Your task to perform on an android device: Show me recent news Image 0: 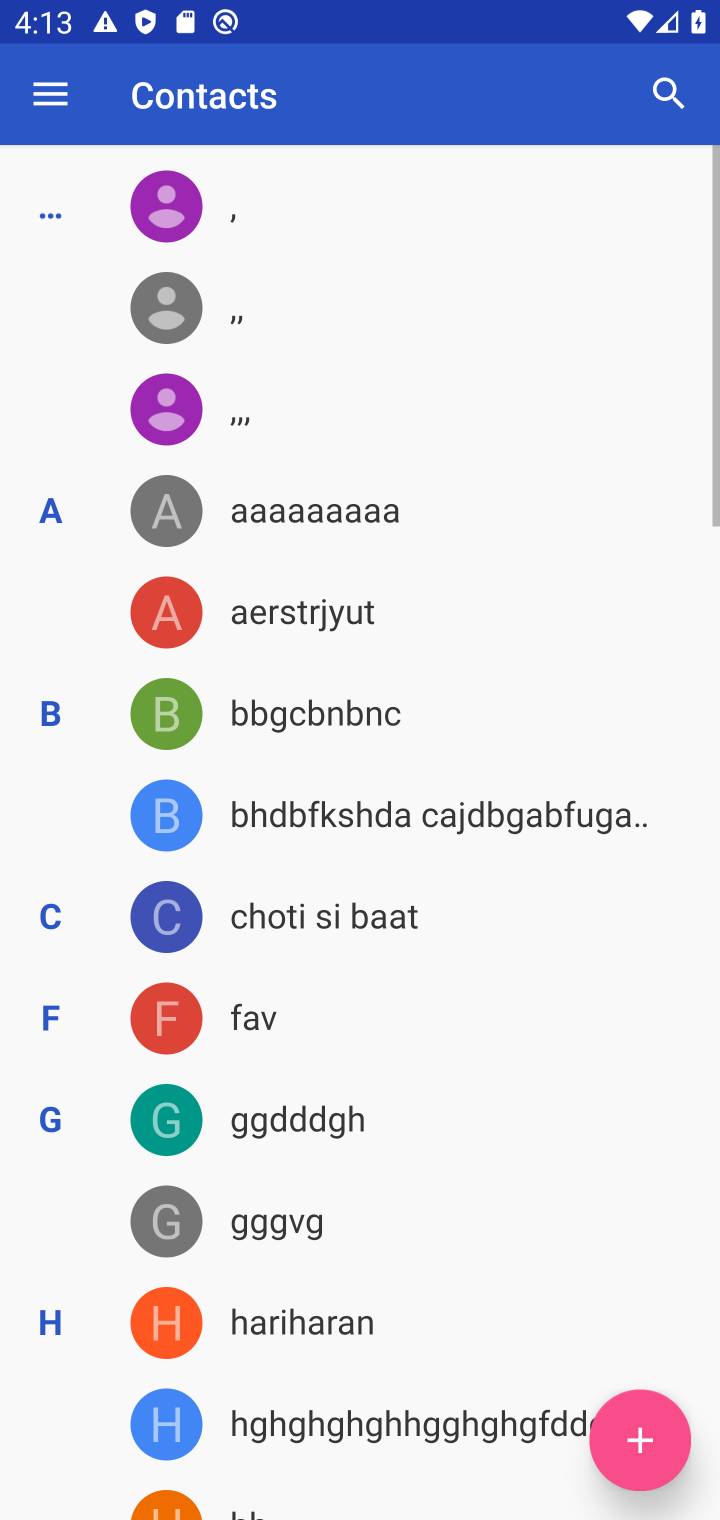
Step 0: click (359, 103)
Your task to perform on an android device: Show me recent news Image 1: 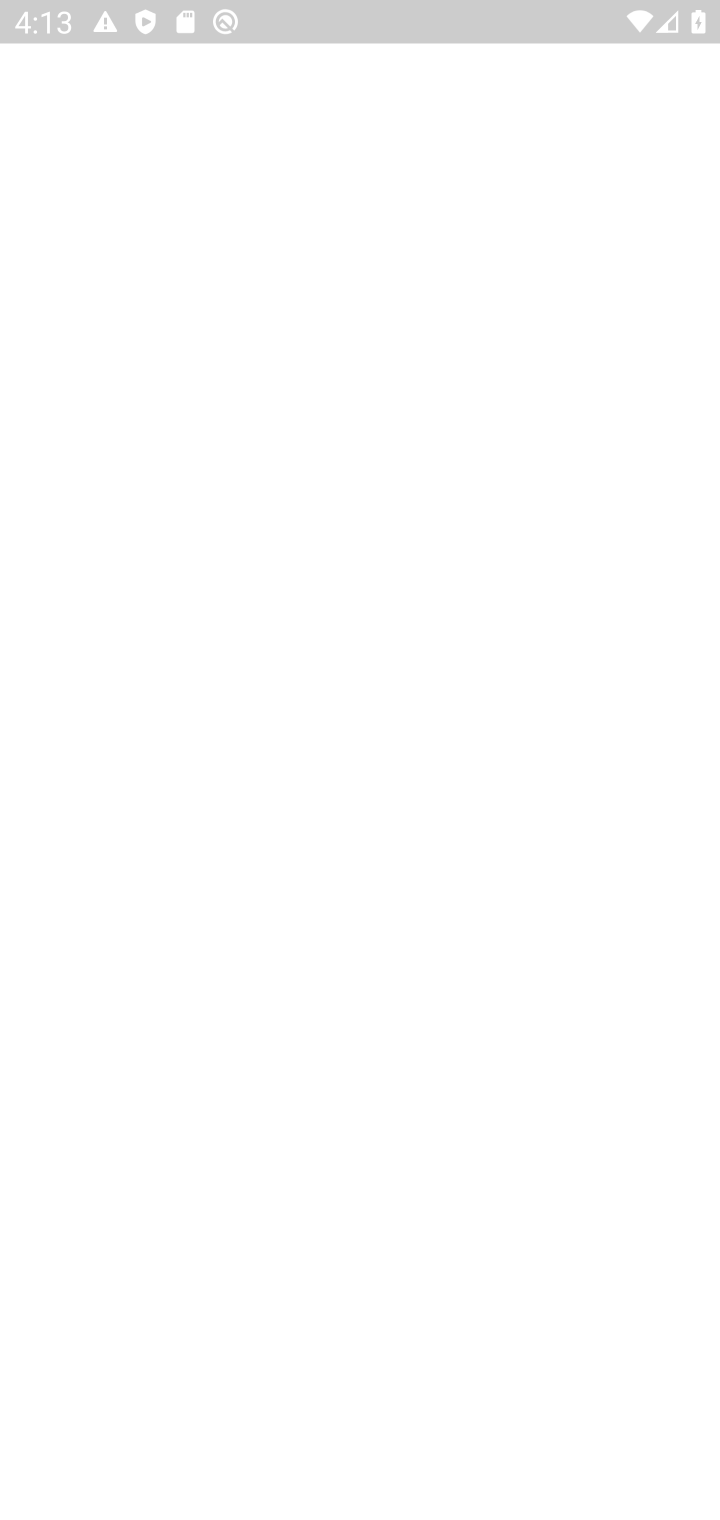
Step 1: type "pizza restaurants "
Your task to perform on an android device: Show me recent news Image 2: 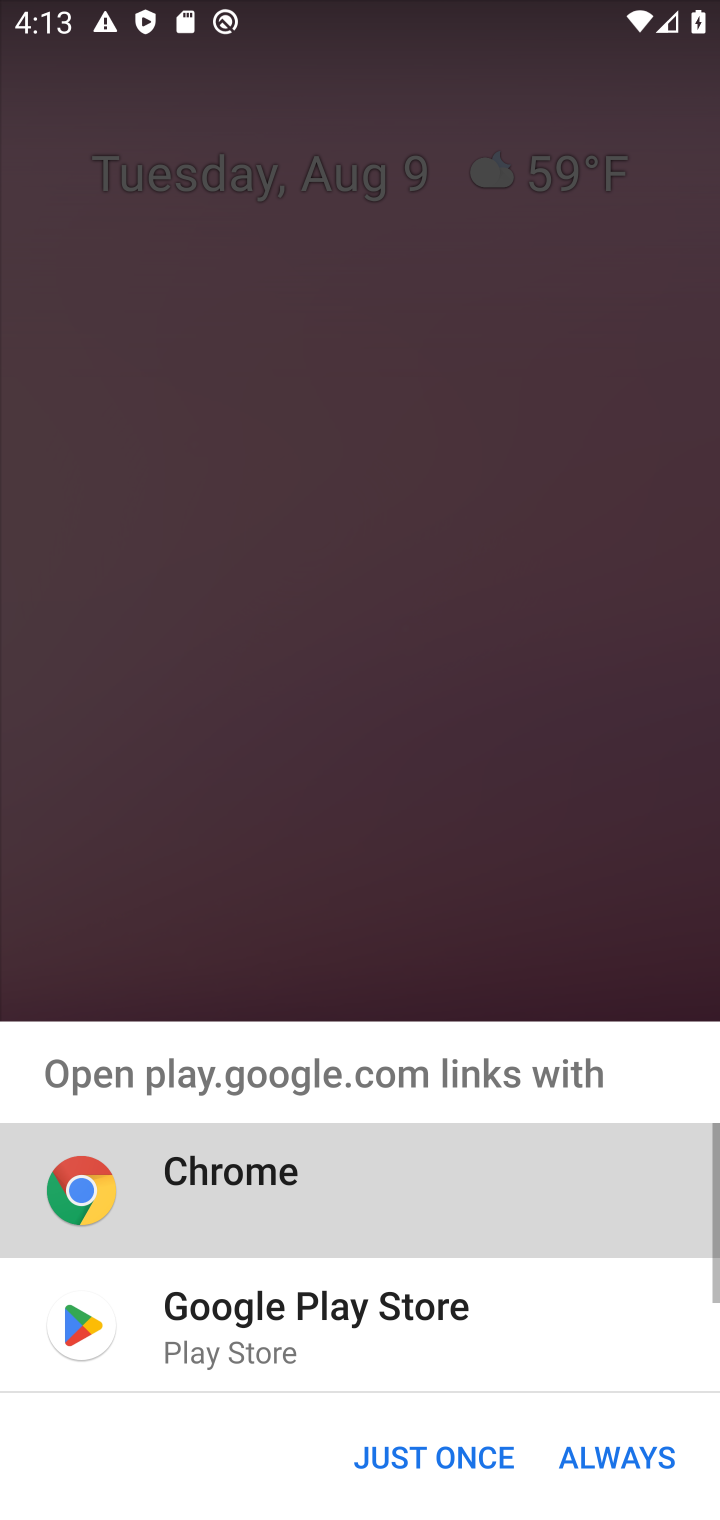
Step 2: task complete